Your task to perform on an android device: Search for sushi restaurants on Maps Image 0: 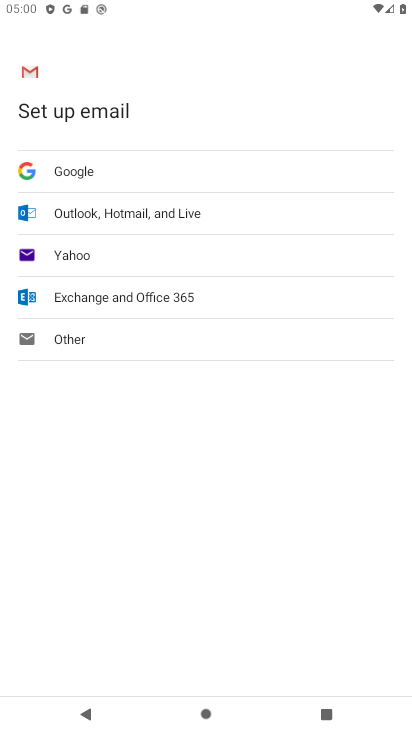
Step 0: press home button
Your task to perform on an android device: Search for sushi restaurants on Maps Image 1: 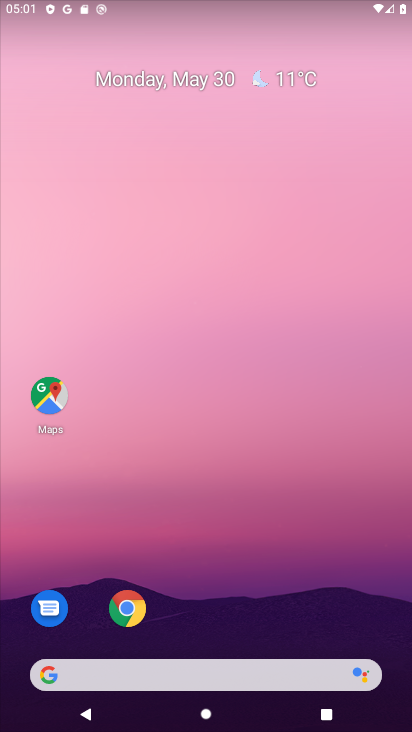
Step 1: click (25, 389)
Your task to perform on an android device: Search for sushi restaurants on Maps Image 2: 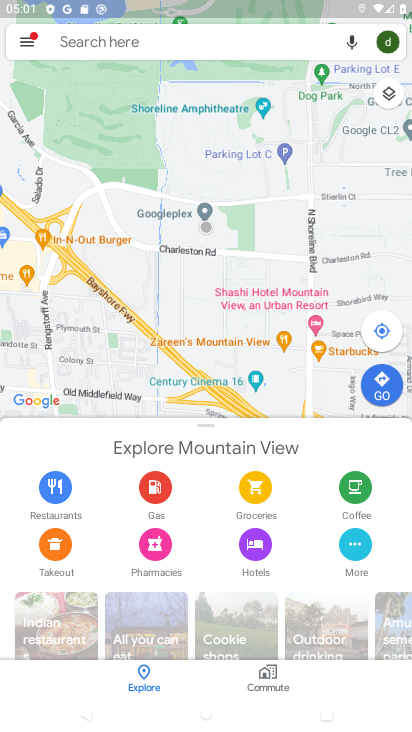
Step 2: click (144, 45)
Your task to perform on an android device: Search for sushi restaurants on Maps Image 3: 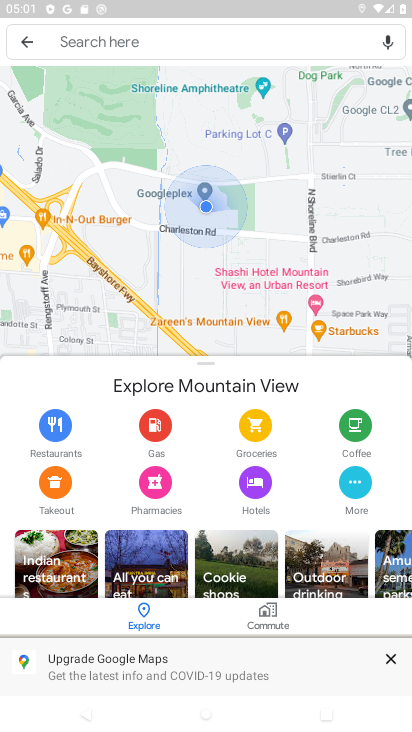
Step 3: click (112, 35)
Your task to perform on an android device: Search for sushi restaurants on Maps Image 4: 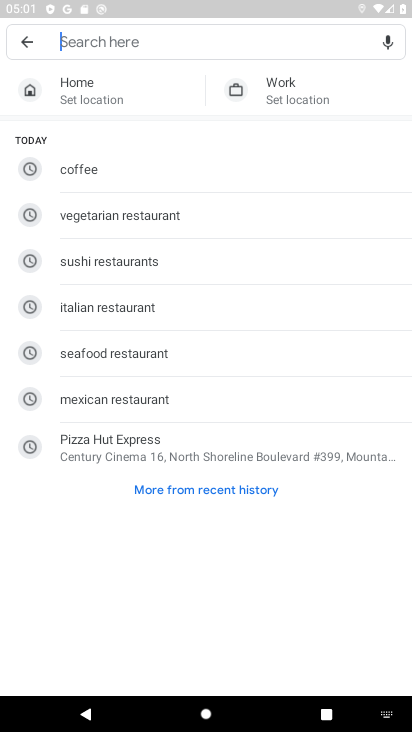
Step 4: click (137, 264)
Your task to perform on an android device: Search for sushi restaurants on Maps Image 5: 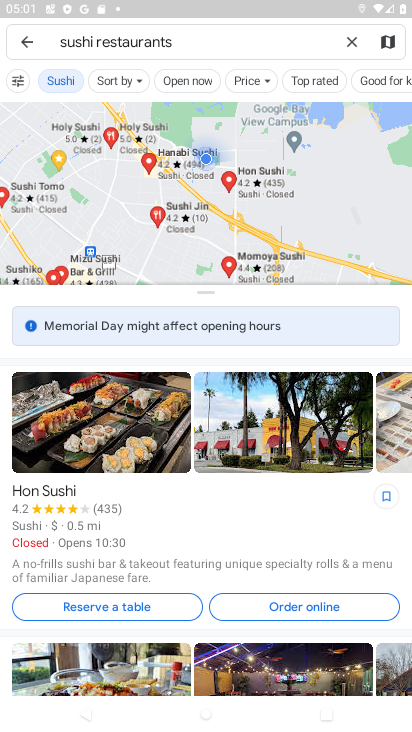
Step 5: task complete